Your task to perform on an android device: remove spam from my inbox in the gmail app Image 0: 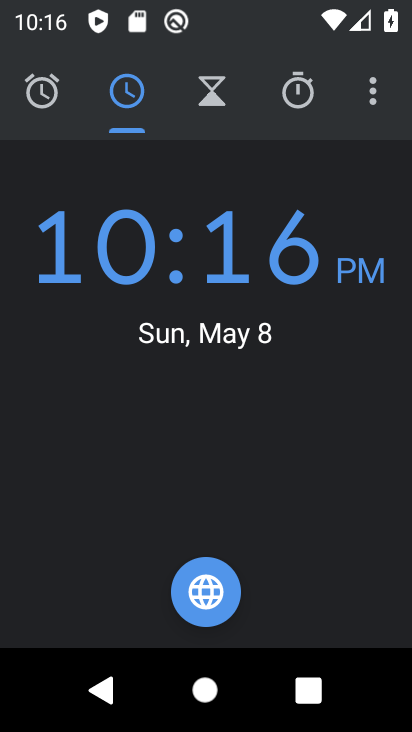
Step 0: press home button
Your task to perform on an android device: remove spam from my inbox in the gmail app Image 1: 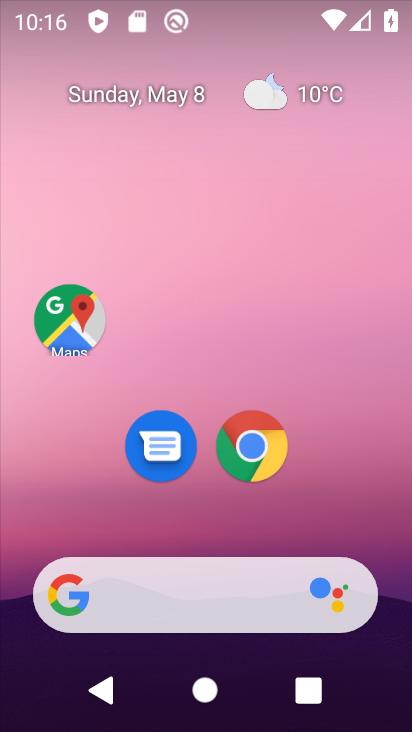
Step 1: drag from (378, 553) to (335, 5)
Your task to perform on an android device: remove spam from my inbox in the gmail app Image 2: 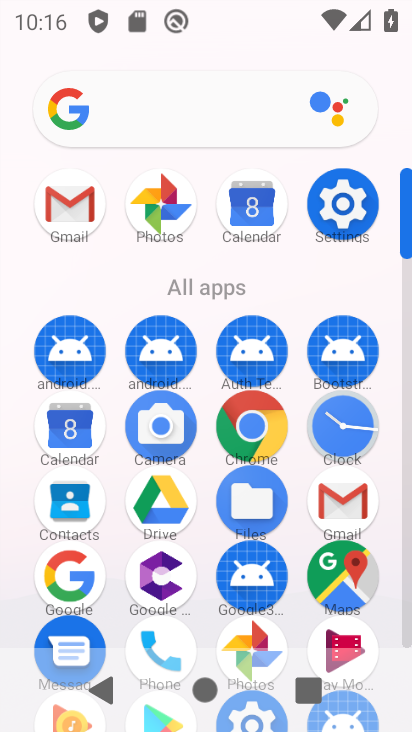
Step 2: click (72, 202)
Your task to perform on an android device: remove spam from my inbox in the gmail app Image 3: 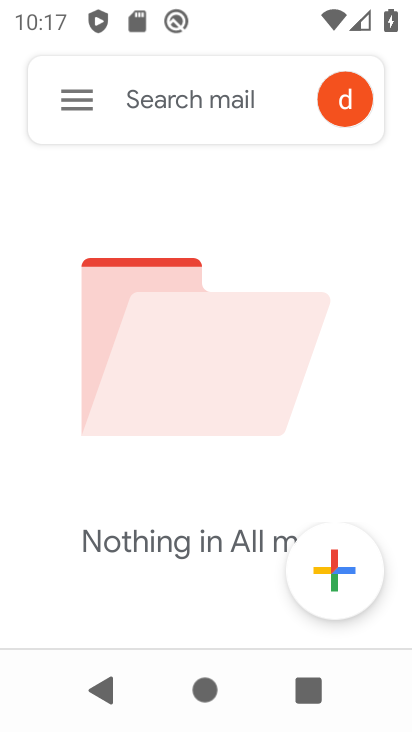
Step 3: click (65, 105)
Your task to perform on an android device: remove spam from my inbox in the gmail app Image 4: 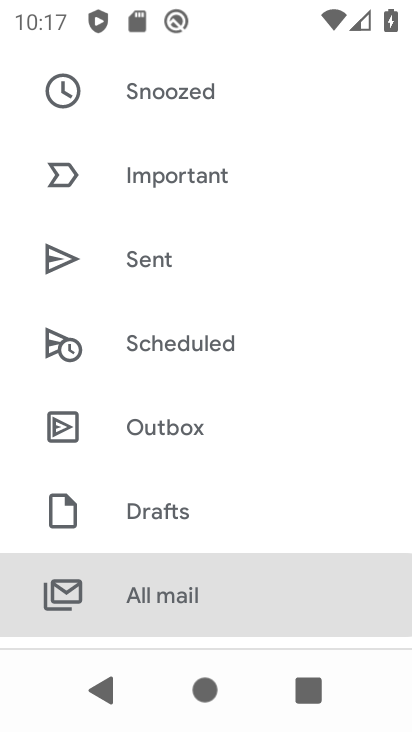
Step 4: drag from (330, 587) to (325, 170)
Your task to perform on an android device: remove spam from my inbox in the gmail app Image 5: 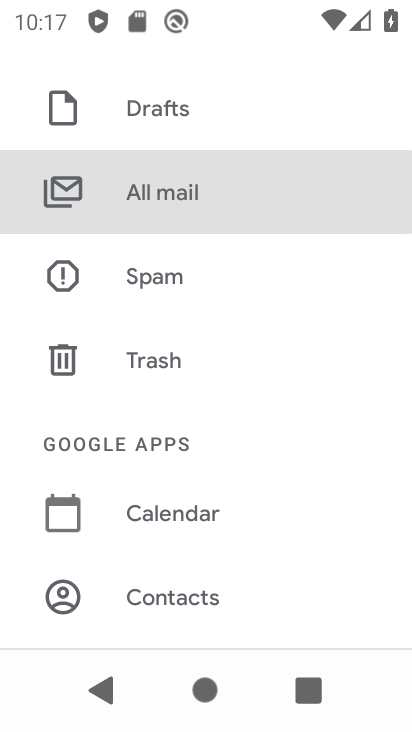
Step 5: drag from (253, 523) to (237, 145)
Your task to perform on an android device: remove spam from my inbox in the gmail app Image 6: 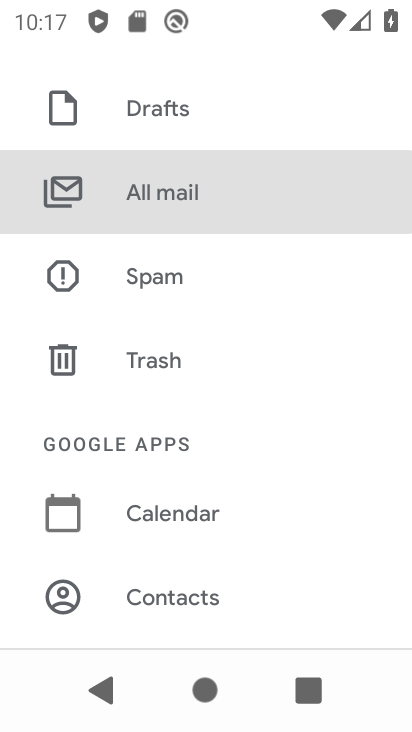
Step 6: click (145, 275)
Your task to perform on an android device: remove spam from my inbox in the gmail app Image 7: 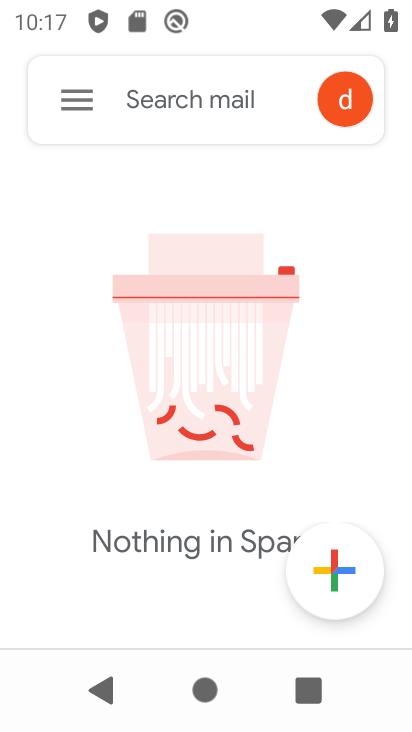
Step 7: task complete